Your task to perform on an android device: Go to display settings Image 0: 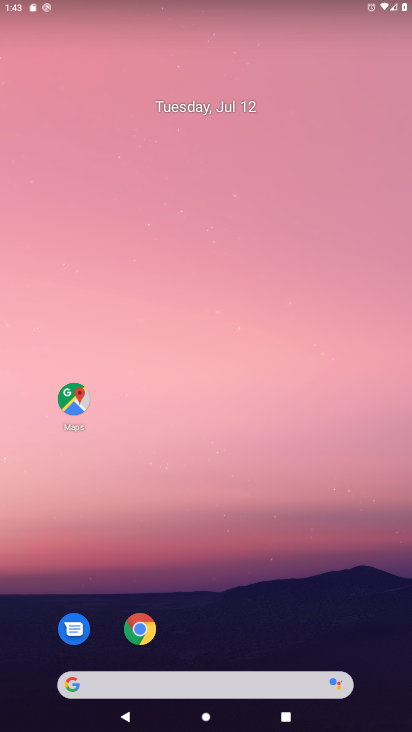
Step 0: drag from (289, 687) to (271, 146)
Your task to perform on an android device: Go to display settings Image 1: 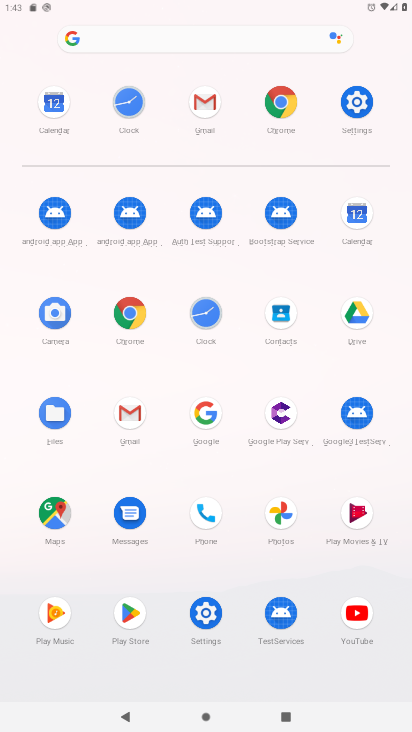
Step 1: click (361, 96)
Your task to perform on an android device: Go to display settings Image 2: 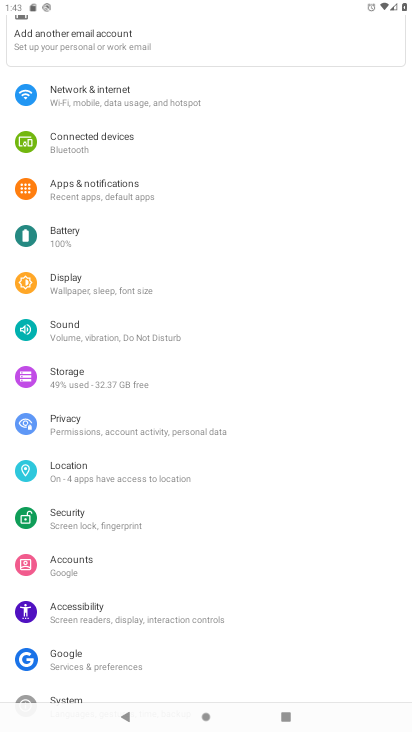
Step 2: click (90, 272)
Your task to perform on an android device: Go to display settings Image 3: 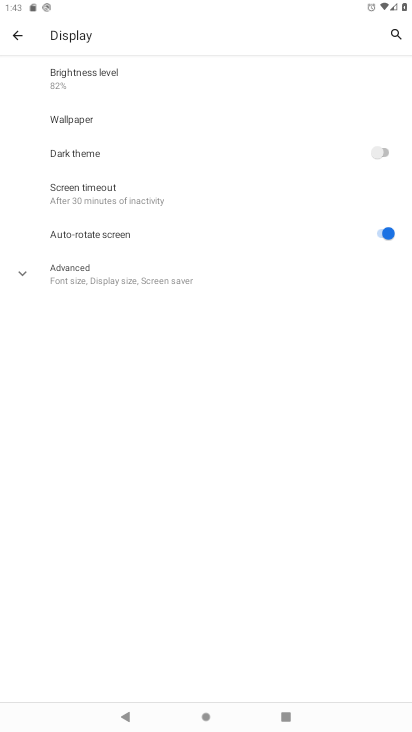
Step 3: task complete